Your task to perform on an android device: toggle improve location accuracy Image 0: 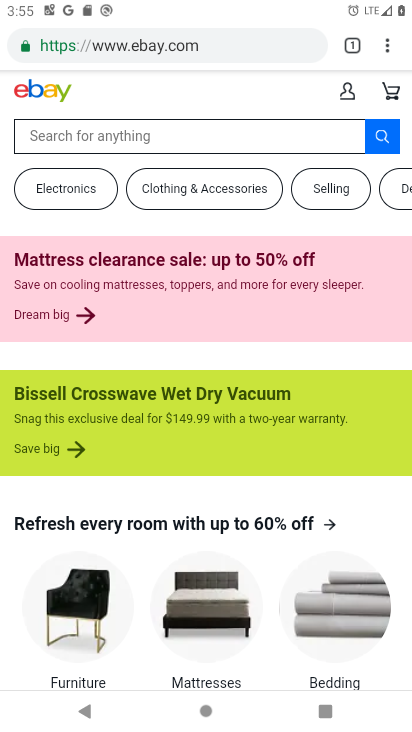
Step 0: press home button
Your task to perform on an android device: toggle improve location accuracy Image 1: 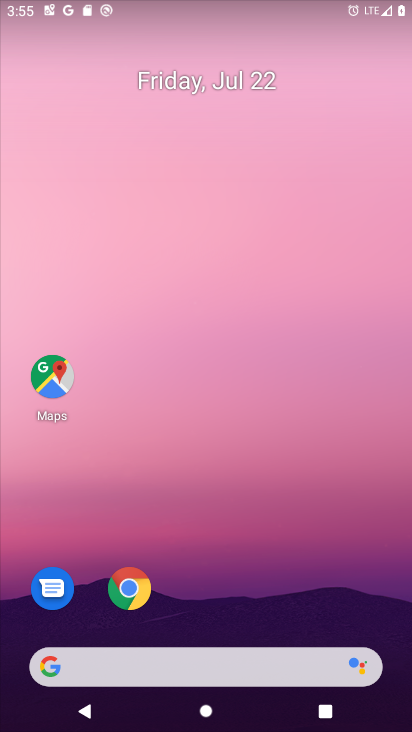
Step 1: drag from (251, 570) to (260, 62)
Your task to perform on an android device: toggle improve location accuracy Image 2: 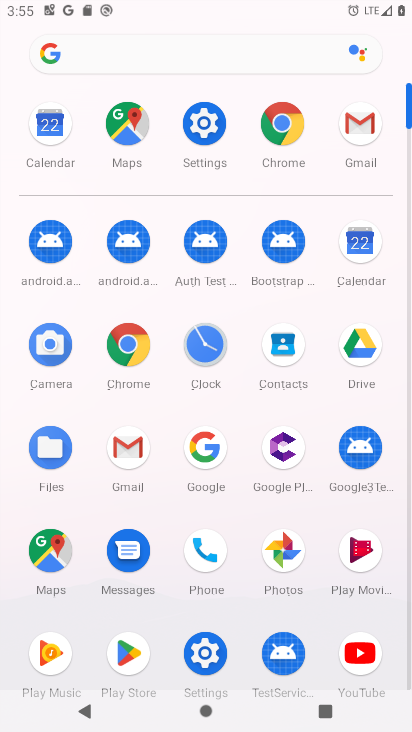
Step 2: click (201, 639)
Your task to perform on an android device: toggle improve location accuracy Image 3: 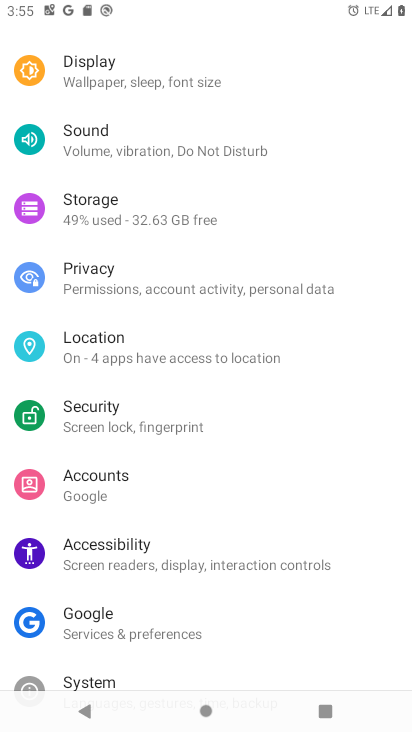
Step 3: click (90, 343)
Your task to perform on an android device: toggle improve location accuracy Image 4: 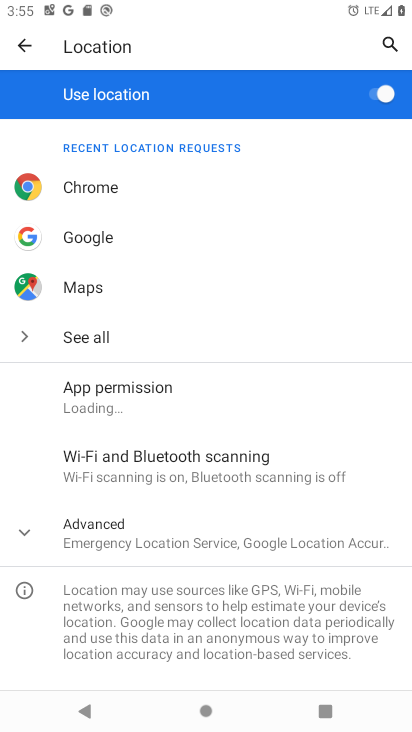
Step 4: click (126, 531)
Your task to perform on an android device: toggle improve location accuracy Image 5: 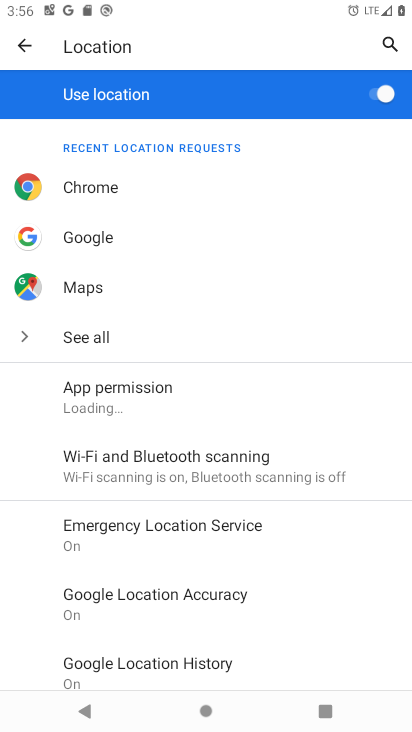
Step 5: click (204, 588)
Your task to perform on an android device: toggle improve location accuracy Image 6: 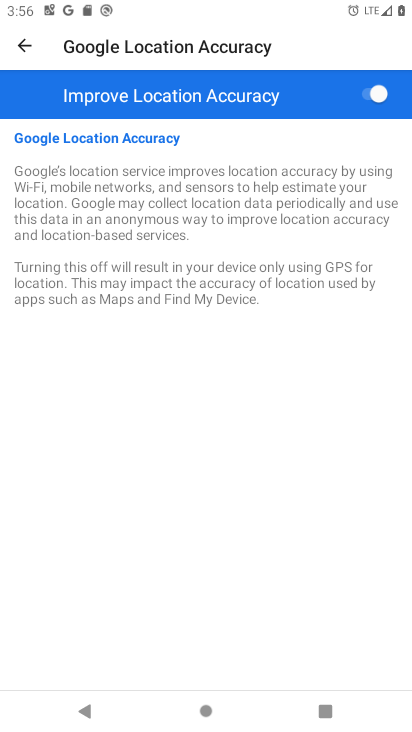
Step 6: click (233, 96)
Your task to perform on an android device: toggle improve location accuracy Image 7: 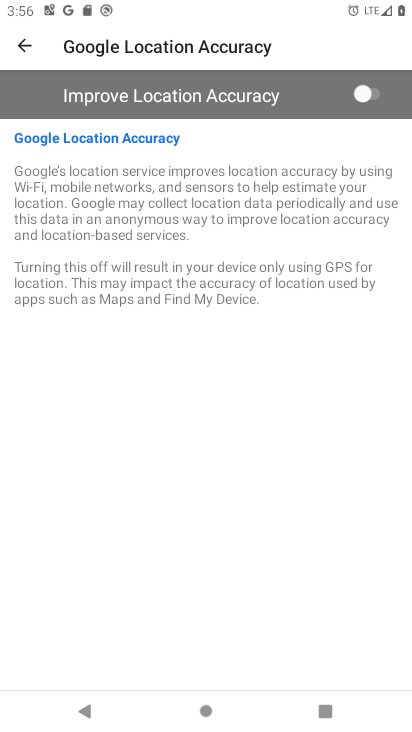
Step 7: task complete